Your task to perform on an android device: toggle translation in the chrome app Image 0: 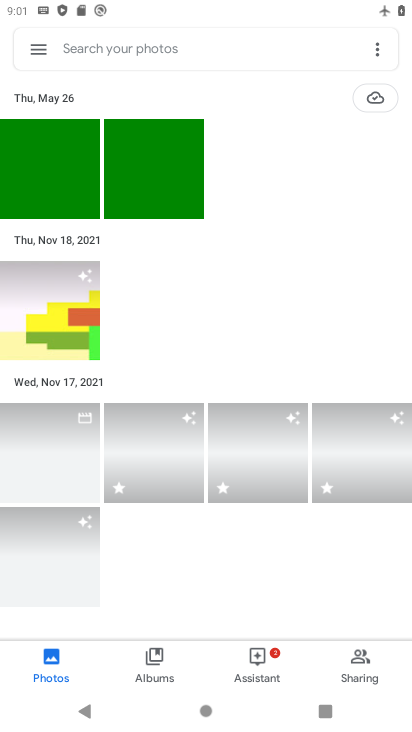
Step 0: press home button
Your task to perform on an android device: toggle translation in the chrome app Image 1: 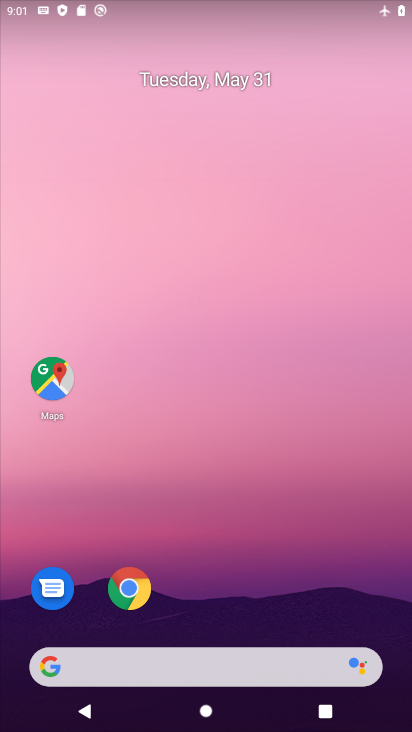
Step 1: click (133, 578)
Your task to perform on an android device: toggle translation in the chrome app Image 2: 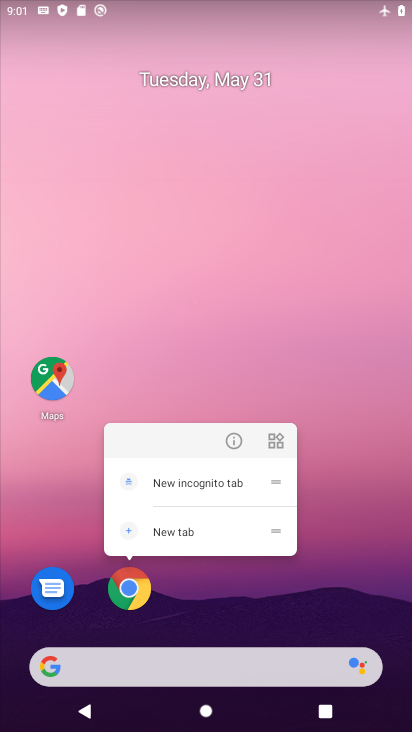
Step 2: click (133, 578)
Your task to perform on an android device: toggle translation in the chrome app Image 3: 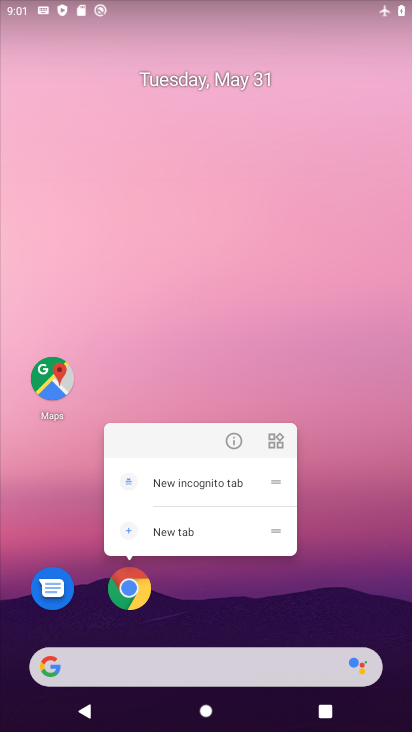
Step 3: click (133, 578)
Your task to perform on an android device: toggle translation in the chrome app Image 4: 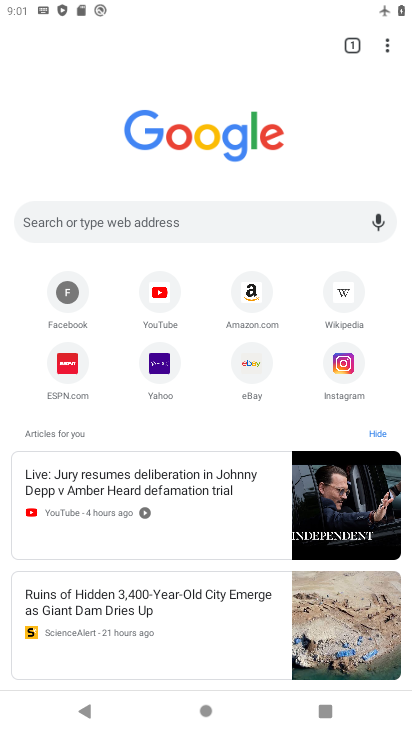
Step 4: click (386, 40)
Your task to perform on an android device: toggle translation in the chrome app Image 5: 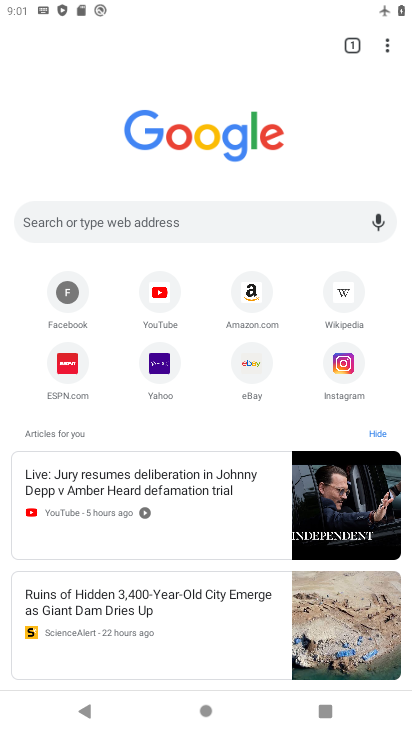
Step 5: click (391, 42)
Your task to perform on an android device: toggle translation in the chrome app Image 6: 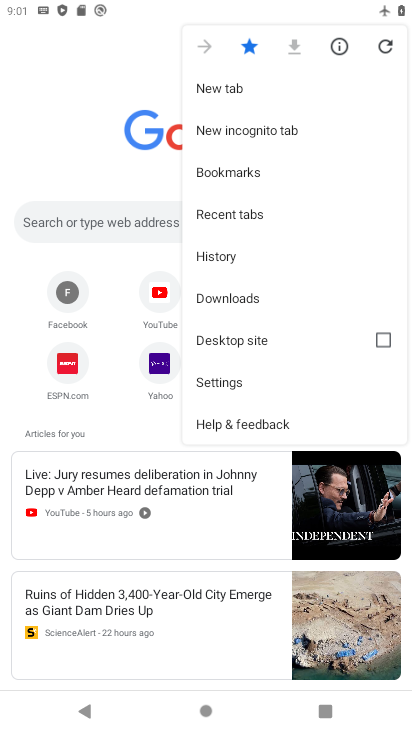
Step 6: click (255, 379)
Your task to perform on an android device: toggle translation in the chrome app Image 7: 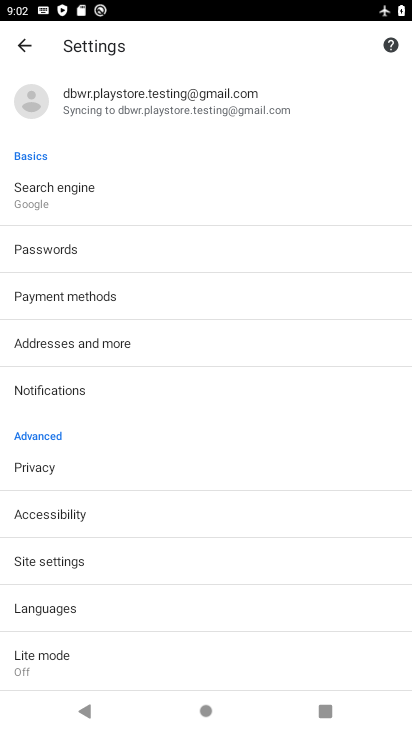
Step 7: click (59, 606)
Your task to perform on an android device: toggle translation in the chrome app Image 8: 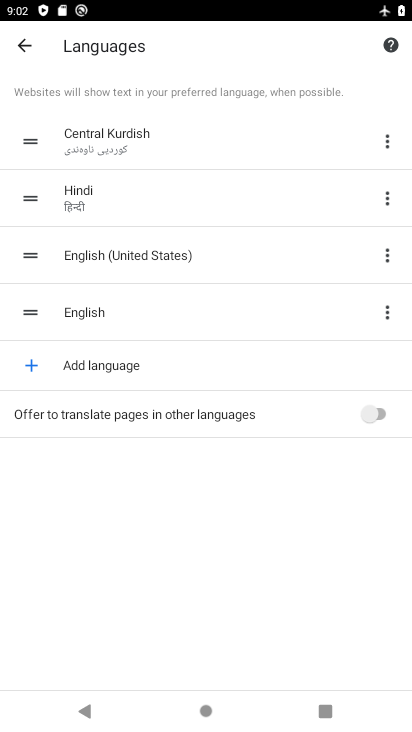
Step 8: click (372, 420)
Your task to perform on an android device: toggle translation in the chrome app Image 9: 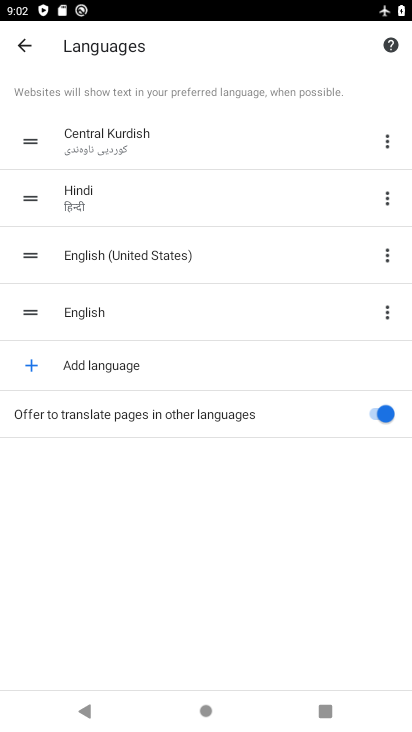
Step 9: task complete